Your task to perform on an android device: open sync settings in chrome Image 0: 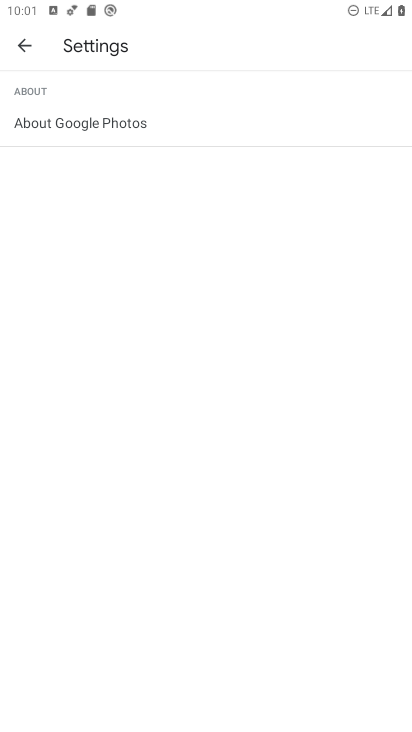
Step 0: press home button
Your task to perform on an android device: open sync settings in chrome Image 1: 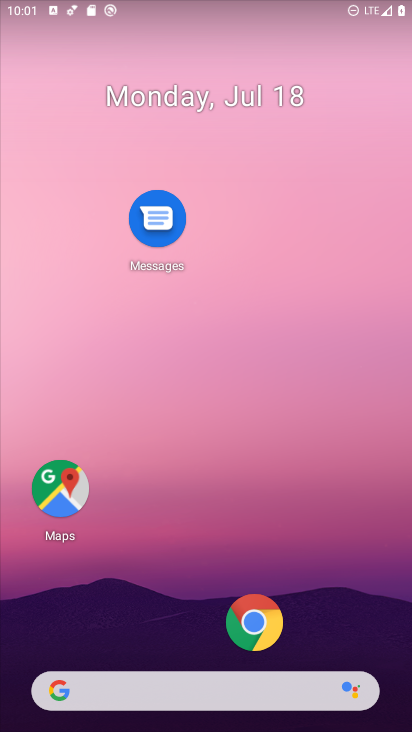
Step 1: drag from (210, 674) to (252, 7)
Your task to perform on an android device: open sync settings in chrome Image 2: 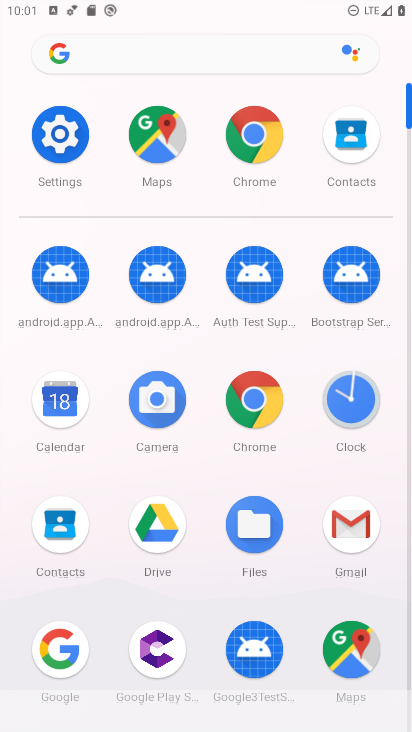
Step 2: click (263, 416)
Your task to perform on an android device: open sync settings in chrome Image 3: 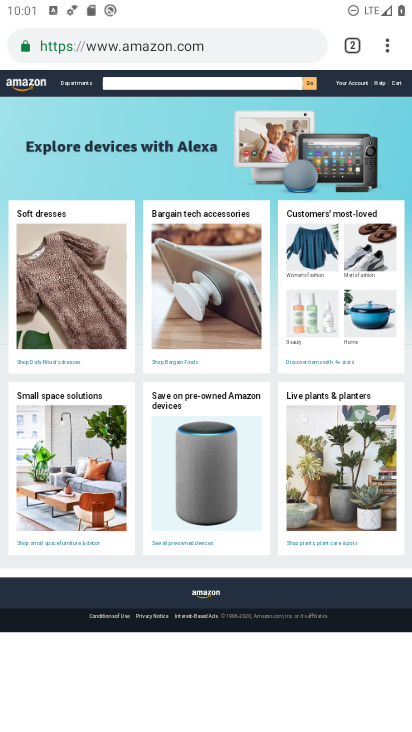
Step 3: click (393, 46)
Your task to perform on an android device: open sync settings in chrome Image 4: 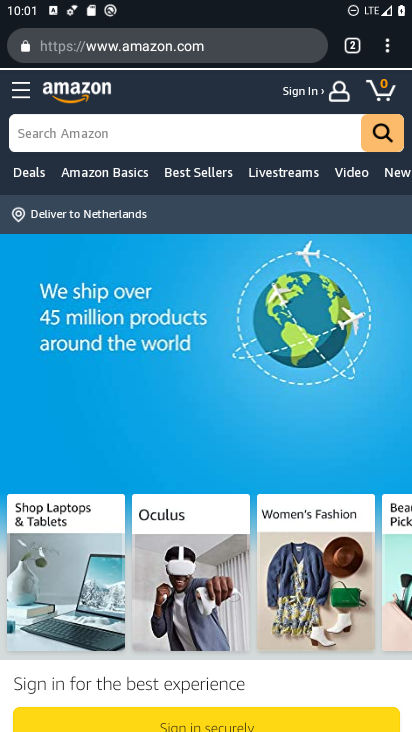
Step 4: click (393, 46)
Your task to perform on an android device: open sync settings in chrome Image 5: 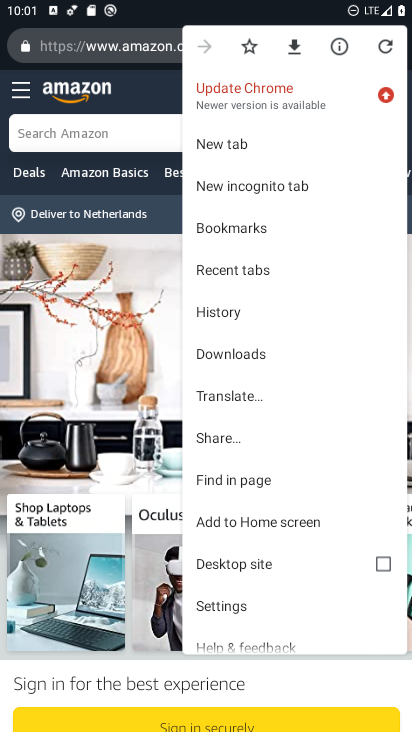
Step 5: drag from (281, 604) to (317, 514)
Your task to perform on an android device: open sync settings in chrome Image 6: 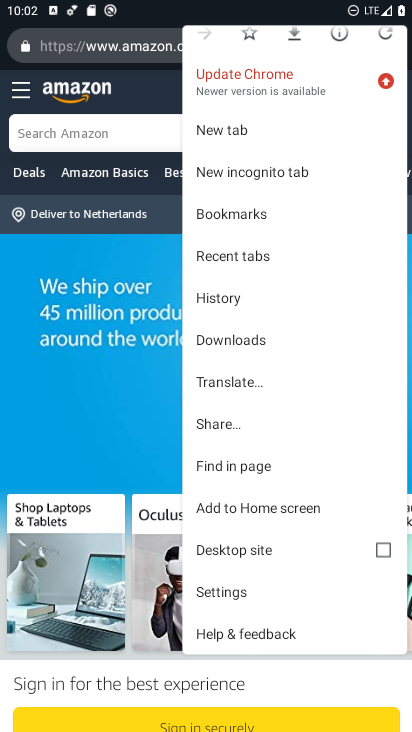
Step 6: click (239, 595)
Your task to perform on an android device: open sync settings in chrome Image 7: 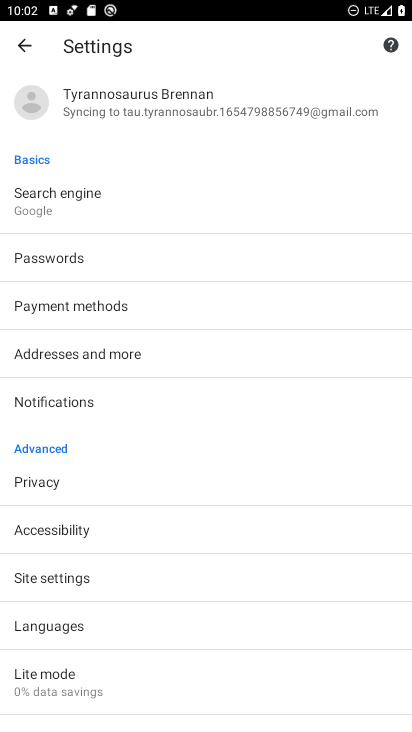
Step 7: click (184, 115)
Your task to perform on an android device: open sync settings in chrome Image 8: 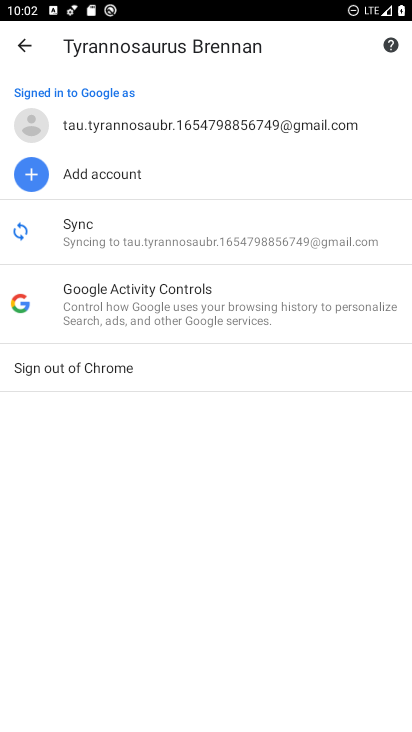
Step 8: click (162, 229)
Your task to perform on an android device: open sync settings in chrome Image 9: 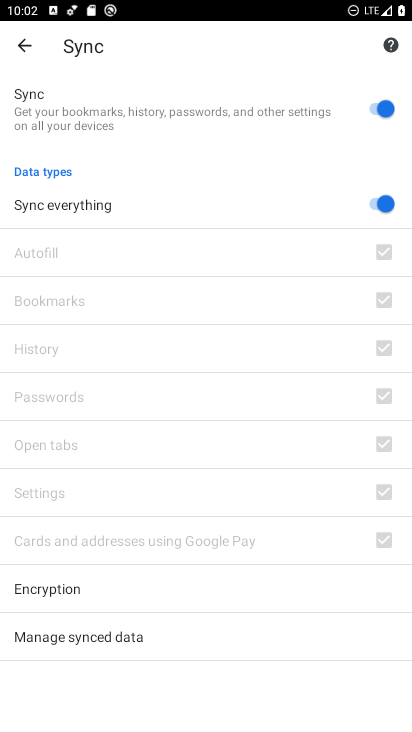
Step 9: task complete